Your task to perform on an android device: install app "Move to iOS" Image 0: 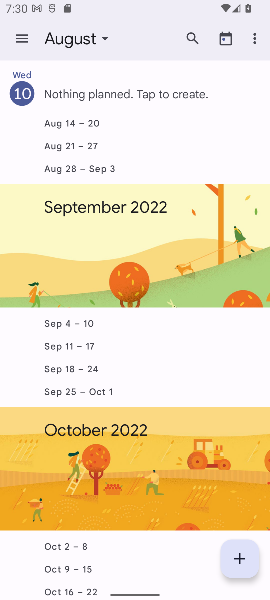
Step 0: press home button
Your task to perform on an android device: install app "Move to iOS" Image 1: 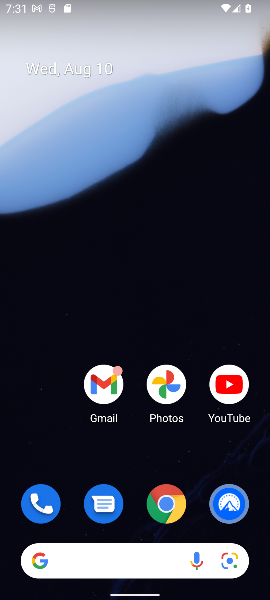
Step 1: drag from (122, 553) to (156, 112)
Your task to perform on an android device: install app "Move to iOS" Image 2: 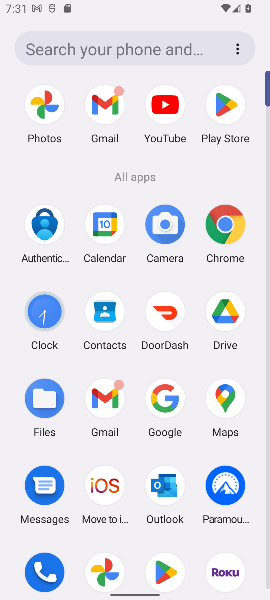
Step 2: click (159, 557)
Your task to perform on an android device: install app "Move to iOS" Image 3: 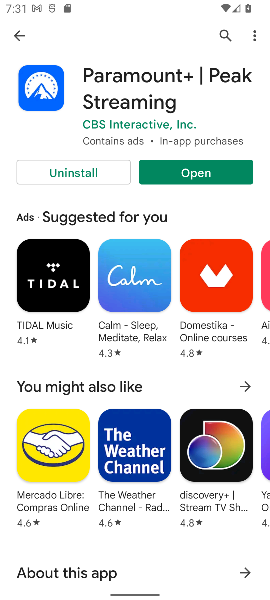
Step 3: click (229, 36)
Your task to perform on an android device: install app "Move to iOS" Image 4: 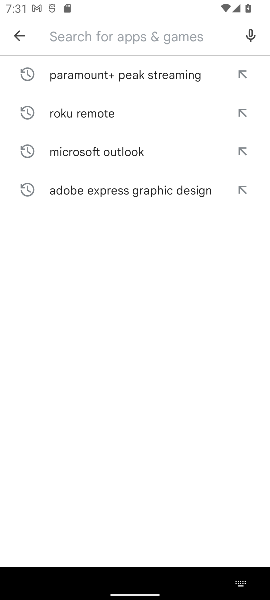
Step 4: type "move to ios"
Your task to perform on an android device: install app "Move to iOS" Image 5: 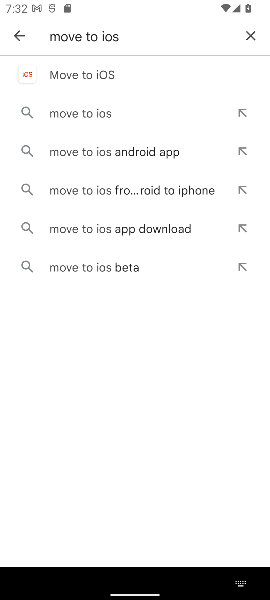
Step 5: click (62, 73)
Your task to perform on an android device: install app "Move to iOS" Image 6: 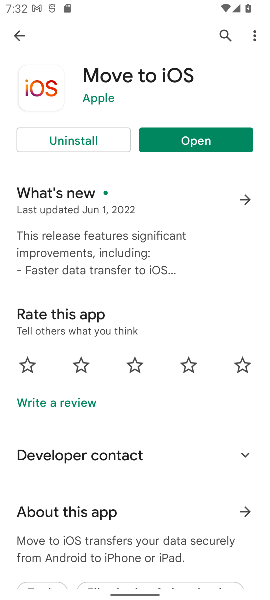
Step 6: task complete